Your task to perform on an android device: change alarm snooze length Image 0: 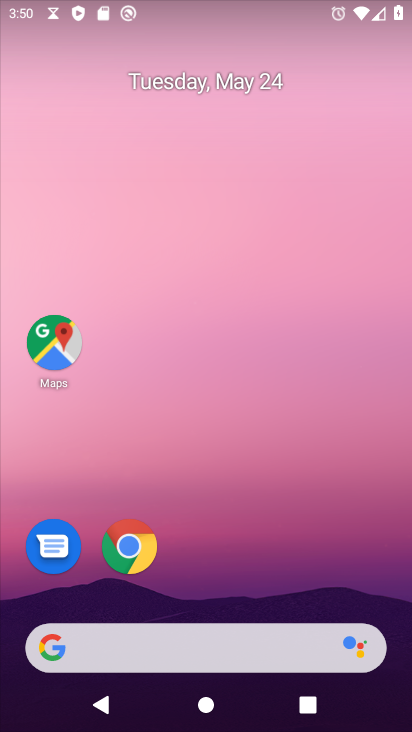
Step 0: drag from (296, 724) to (242, 34)
Your task to perform on an android device: change alarm snooze length Image 1: 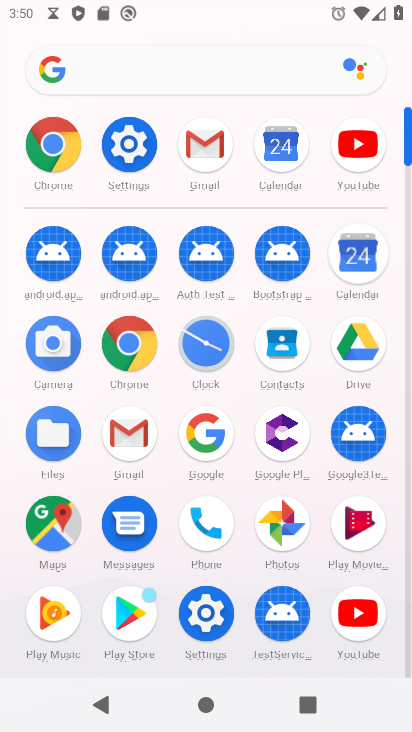
Step 1: click (212, 339)
Your task to perform on an android device: change alarm snooze length Image 2: 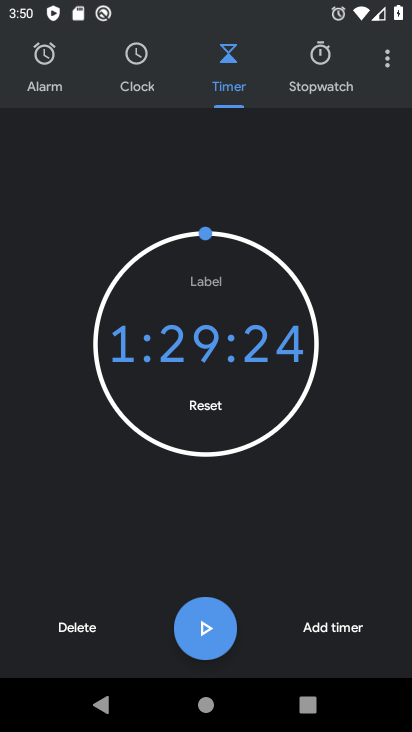
Step 2: click (386, 46)
Your task to perform on an android device: change alarm snooze length Image 3: 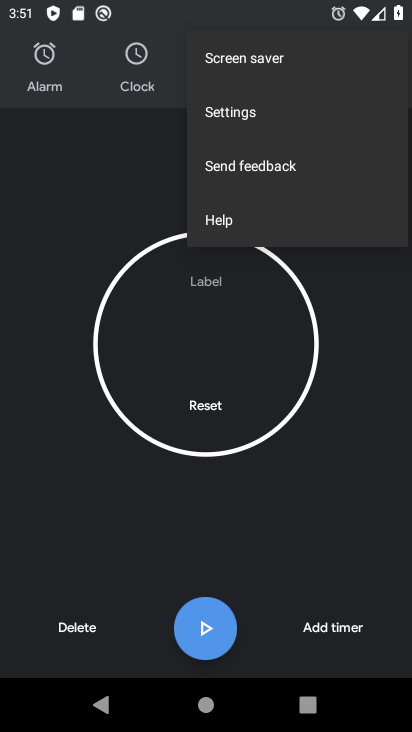
Step 3: click (231, 102)
Your task to perform on an android device: change alarm snooze length Image 4: 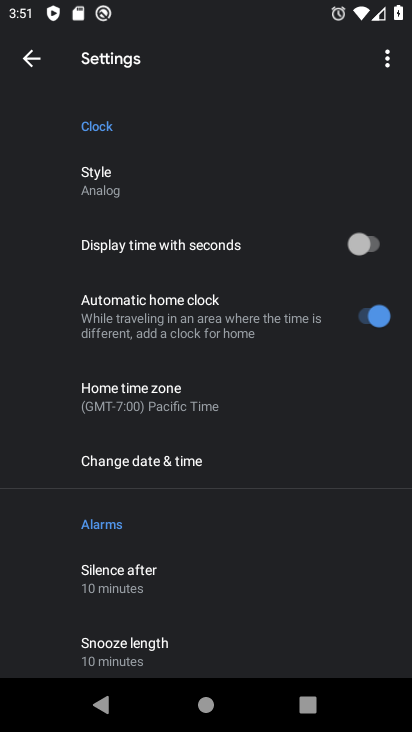
Step 4: click (125, 640)
Your task to perform on an android device: change alarm snooze length Image 5: 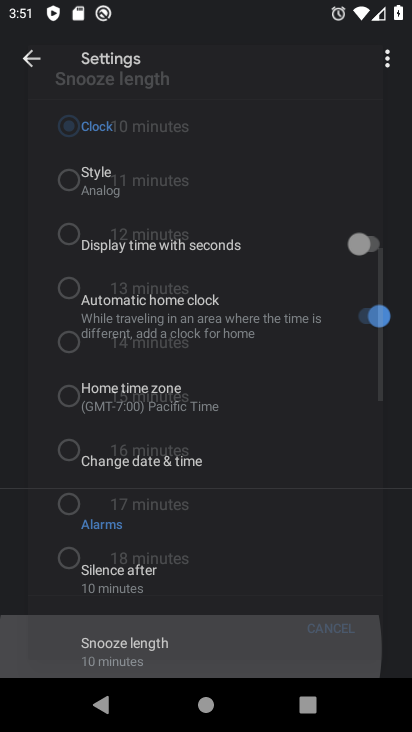
Step 5: click (116, 631)
Your task to perform on an android device: change alarm snooze length Image 6: 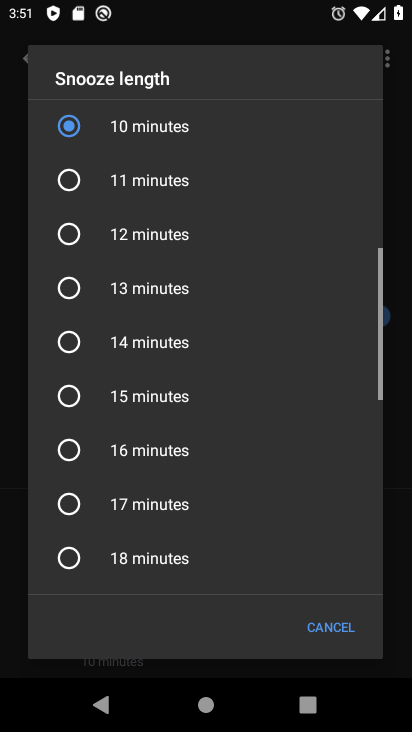
Step 6: click (116, 631)
Your task to perform on an android device: change alarm snooze length Image 7: 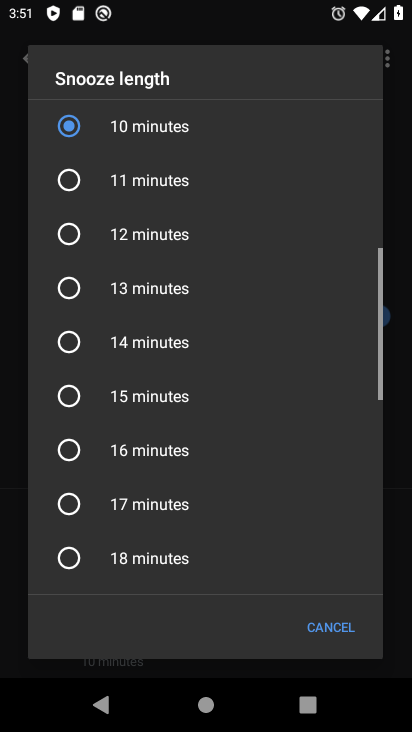
Step 7: click (116, 631)
Your task to perform on an android device: change alarm snooze length Image 8: 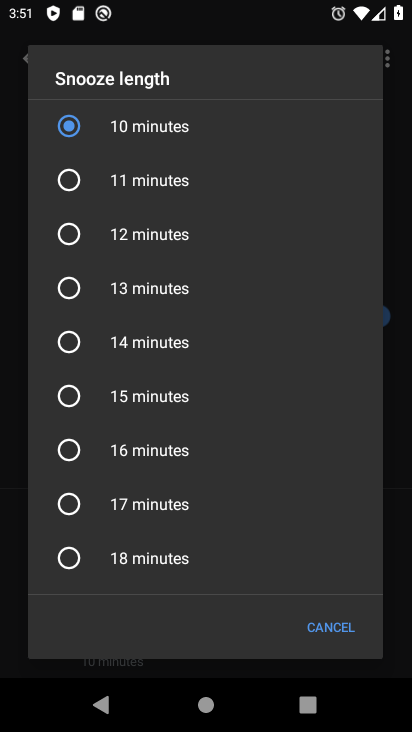
Step 8: click (71, 286)
Your task to perform on an android device: change alarm snooze length Image 9: 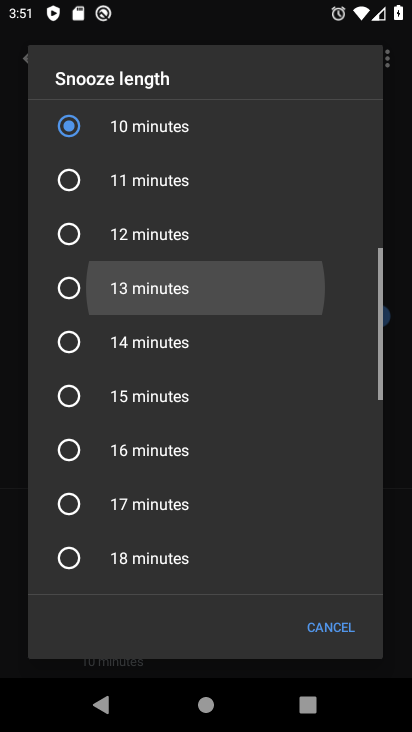
Step 9: click (71, 286)
Your task to perform on an android device: change alarm snooze length Image 10: 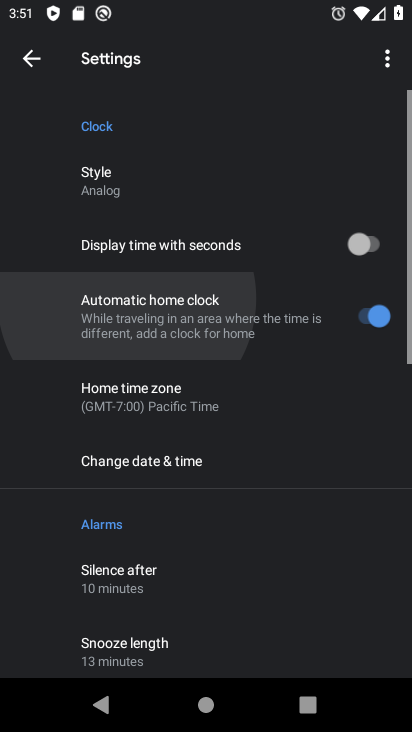
Step 10: click (71, 286)
Your task to perform on an android device: change alarm snooze length Image 11: 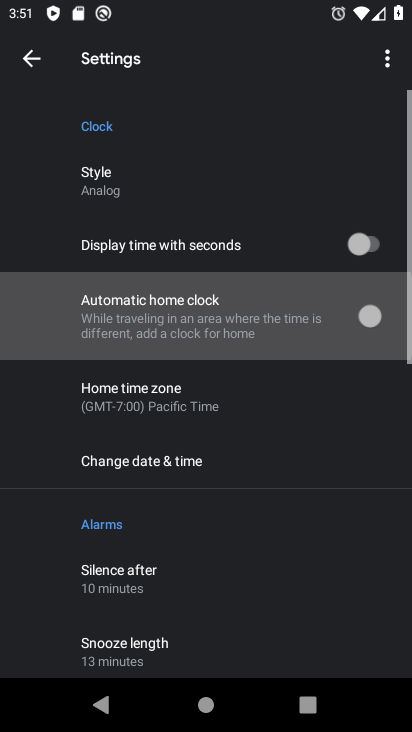
Step 11: click (71, 286)
Your task to perform on an android device: change alarm snooze length Image 12: 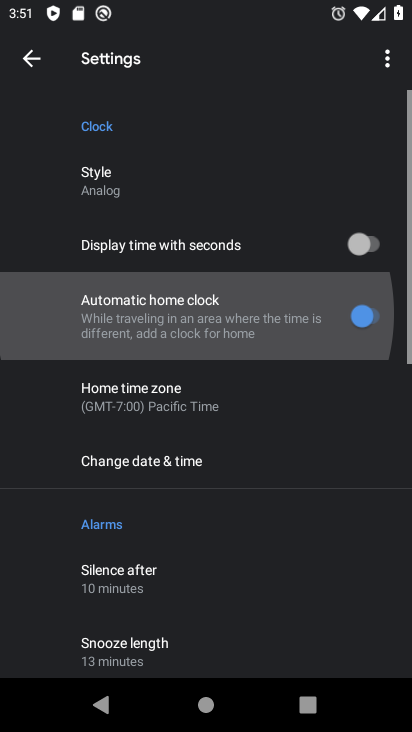
Step 12: click (71, 286)
Your task to perform on an android device: change alarm snooze length Image 13: 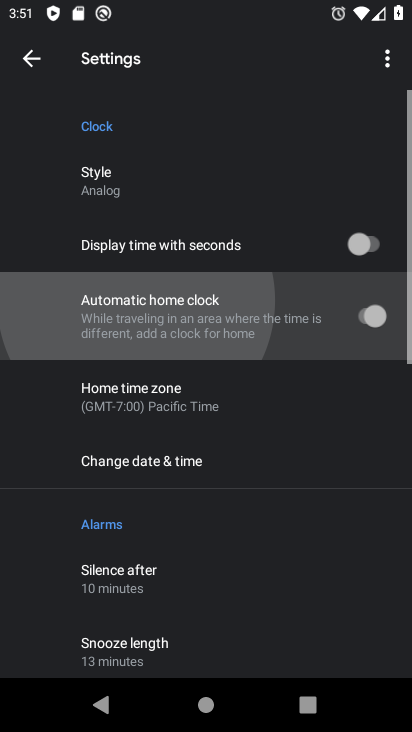
Step 13: click (71, 286)
Your task to perform on an android device: change alarm snooze length Image 14: 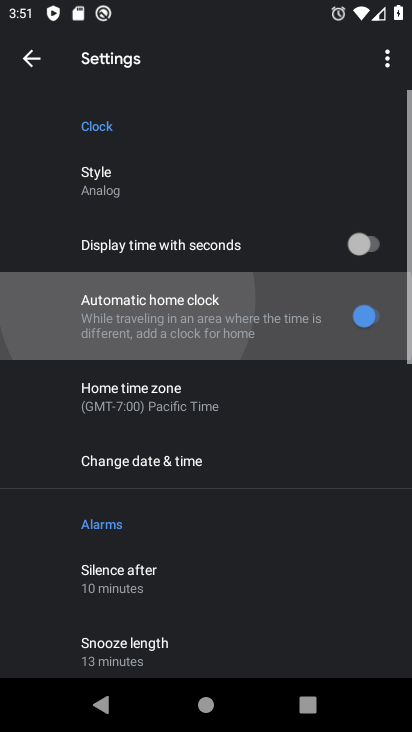
Step 14: click (71, 286)
Your task to perform on an android device: change alarm snooze length Image 15: 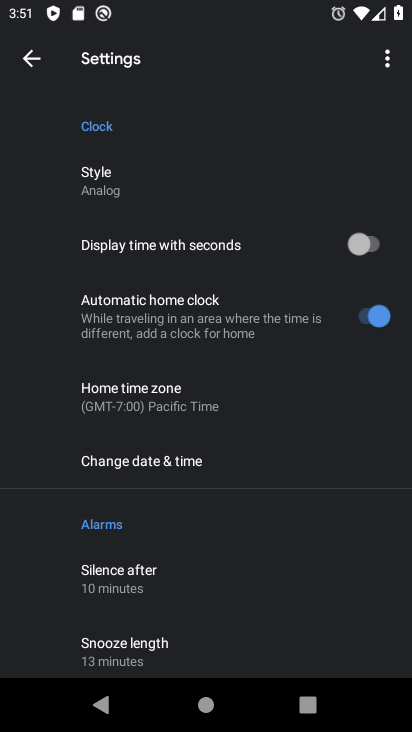
Step 15: task complete